Your task to perform on an android device: uninstall "Indeed Job Search" Image 0: 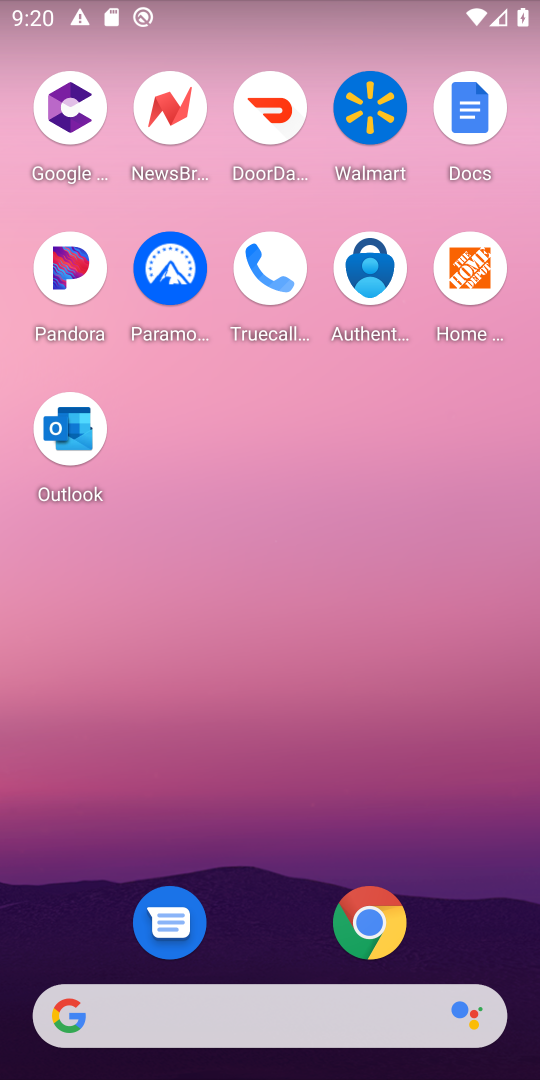
Step 0: drag from (290, 1065) to (282, 303)
Your task to perform on an android device: uninstall "Indeed Job Search" Image 1: 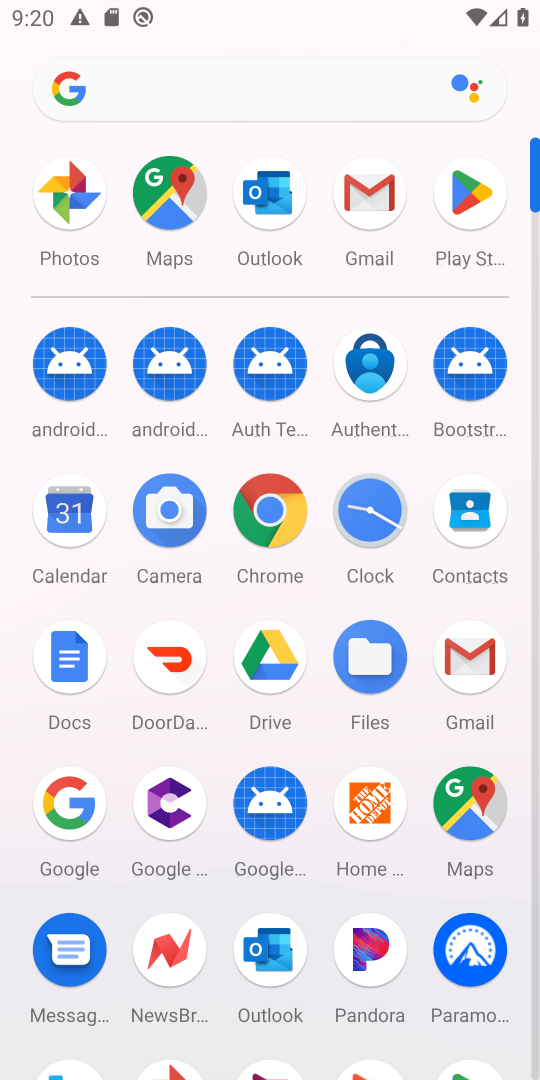
Step 1: click (464, 198)
Your task to perform on an android device: uninstall "Indeed Job Search" Image 2: 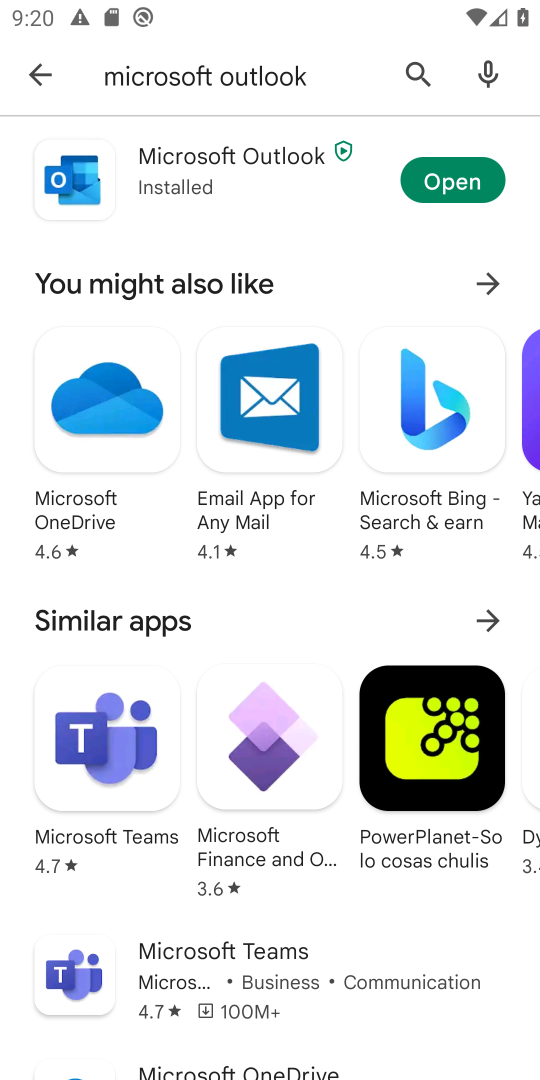
Step 2: click (409, 72)
Your task to perform on an android device: uninstall "Indeed Job Search" Image 3: 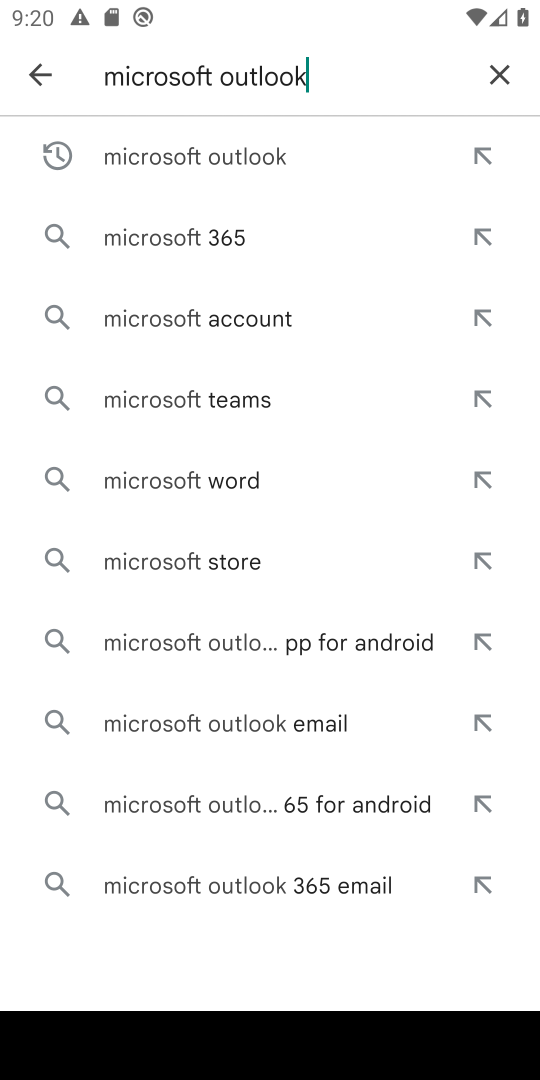
Step 3: click (500, 65)
Your task to perform on an android device: uninstall "Indeed Job Search" Image 4: 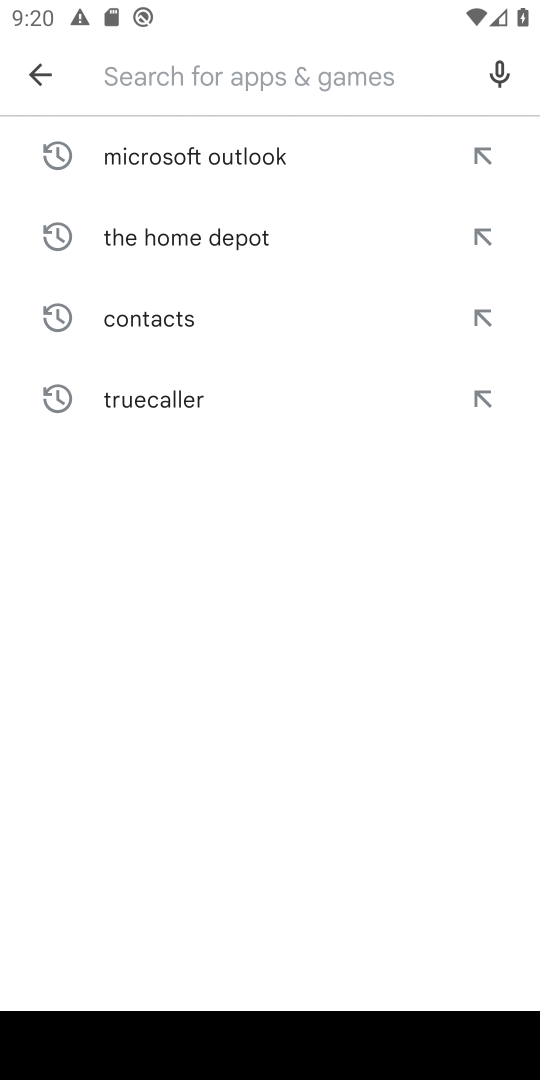
Step 4: type "Indeed Job Search"
Your task to perform on an android device: uninstall "Indeed Job Search" Image 5: 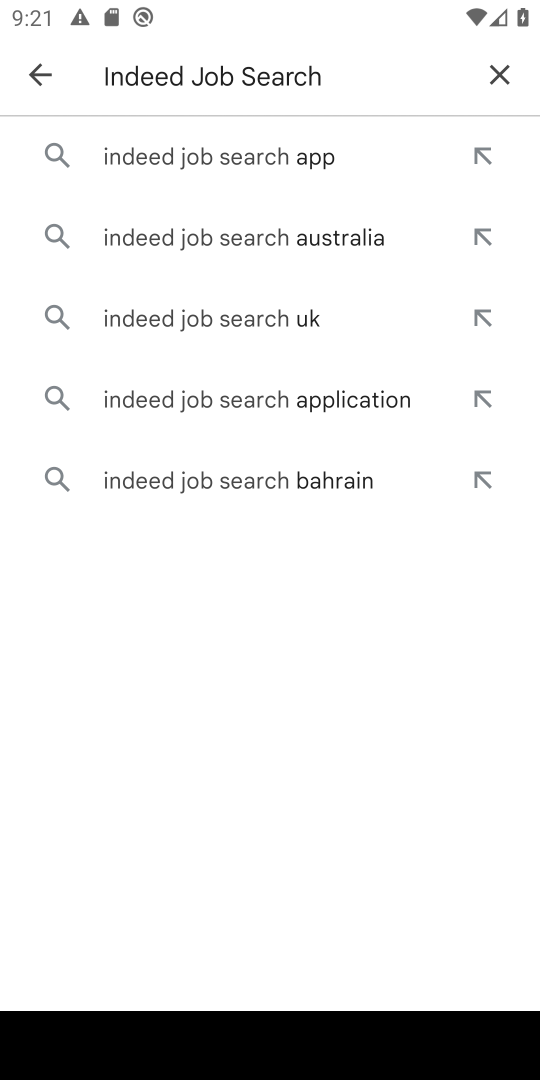
Step 5: click (198, 154)
Your task to perform on an android device: uninstall "Indeed Job Search" Image 6: 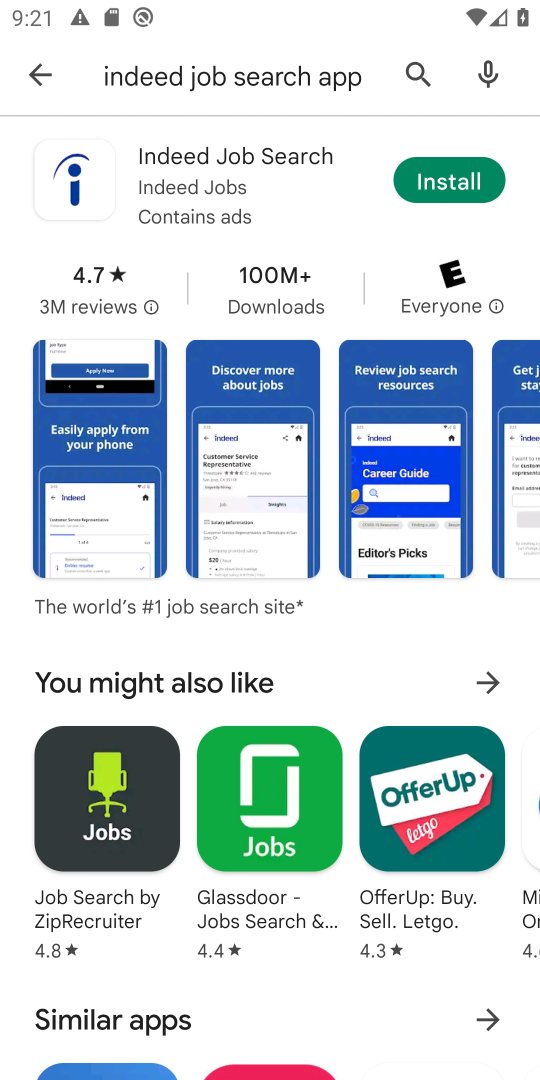
Step 6: click (204, 153)
Your task to perform on an android device: uninstall "Indeed Job Search" Image 7: 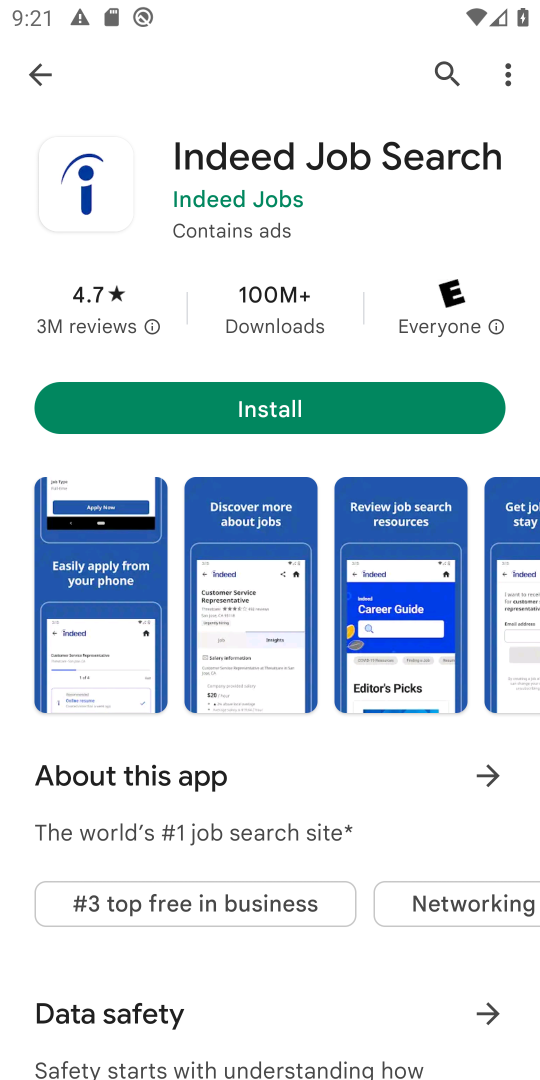
Step 7: task complete